Your task to perform on an android device: check battery use Image 0: 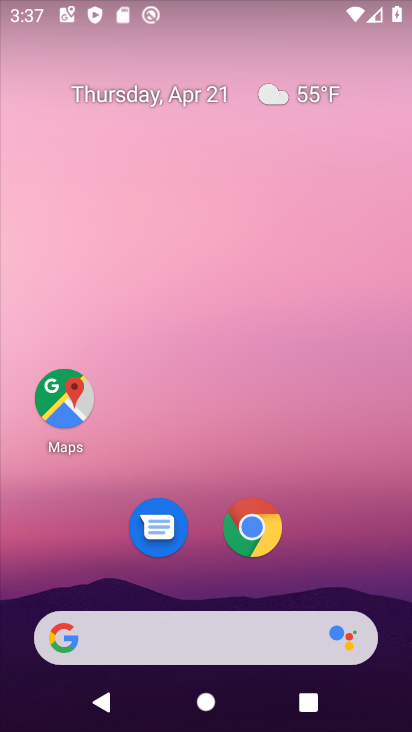
Step 0: drag from (368, 501) to (341, 136)
Your task to perform on an android device: check battery use Image 1: 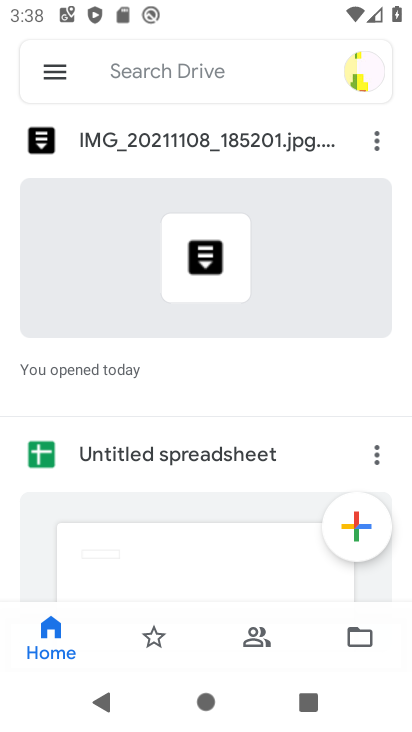
Step 1: press home button
Your task to perform on an android device: check battery use Image 2: 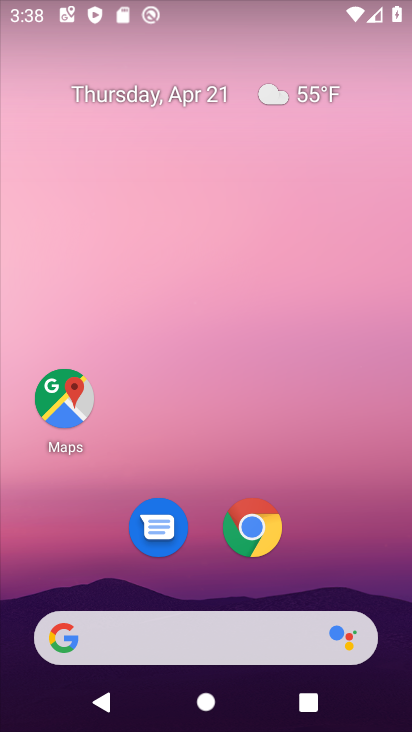
Step 2: drag from (375, 556) to (323, 210)
Your task to perform on an android device: check battery use Image 3: 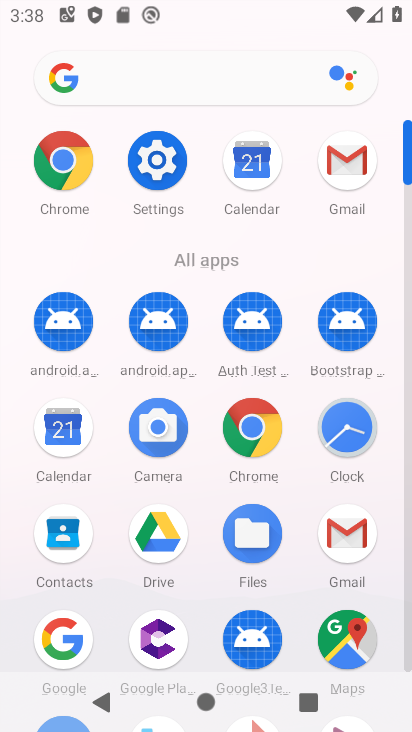
Step 3: click (172, 166)
Your task to perform on an android device: check battery use Image 4: 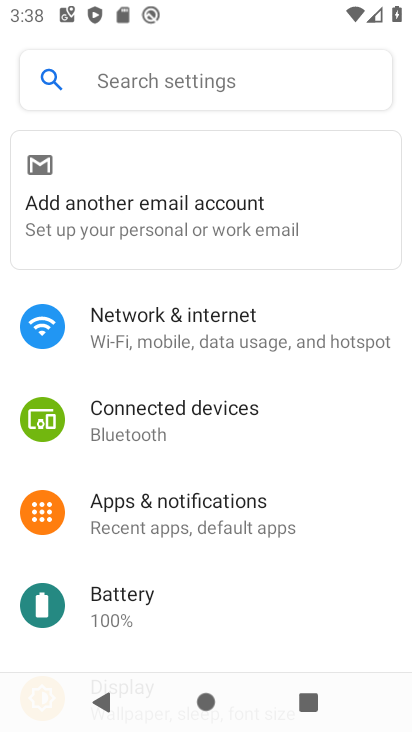
Step 4: click (159, 622)
Your task to perform on an android device: check battery use Image 5: 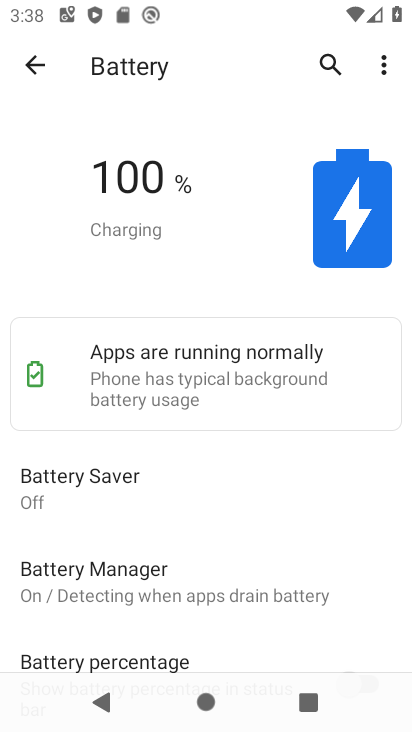
Step 5: click (382, 57)
Your task to perform on an android device: check battery use Image 6: 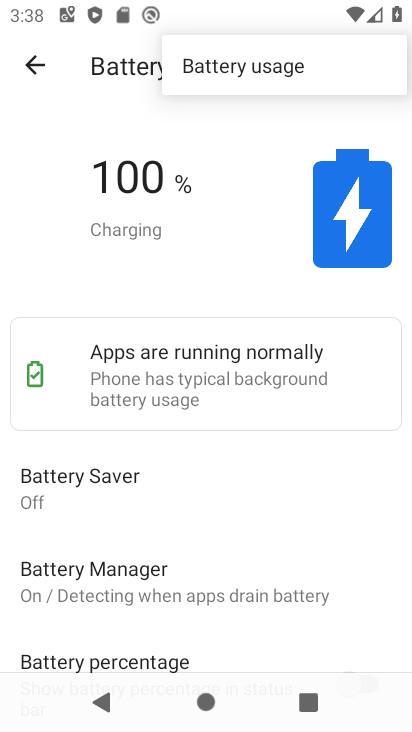
Step 6: click (315, 58)
Your task to perform on an android device: check battery use Image 7: 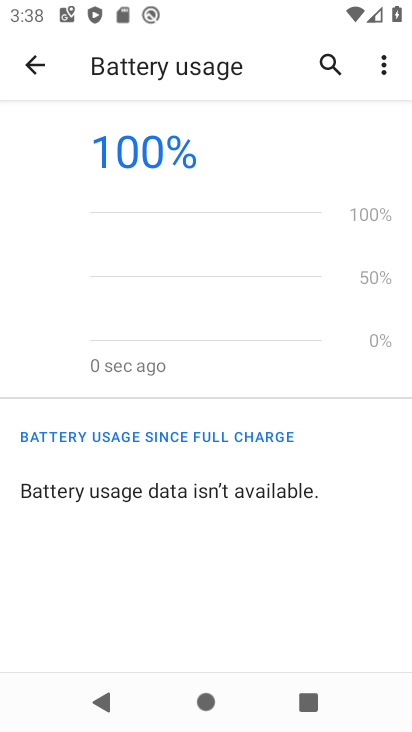
Step 7: task complete